Your task to perform on an android device: turn notification dots on Image 0: 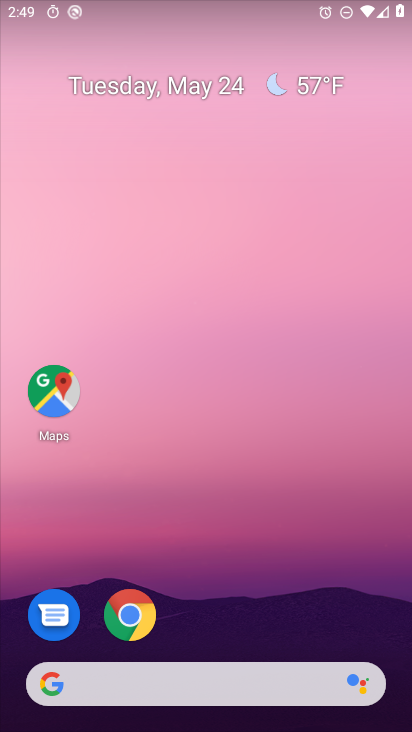
Step 0: drag from (191, 675) to (247, 204)
Your task to perform on an android device: turn notification dots on Image 1: 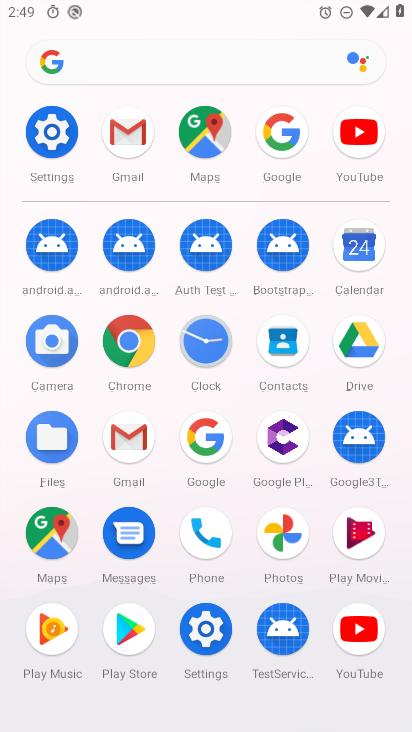
Step 1: click (46, 131)
Your task to perform on an android device: turn notification dots on Image 2: 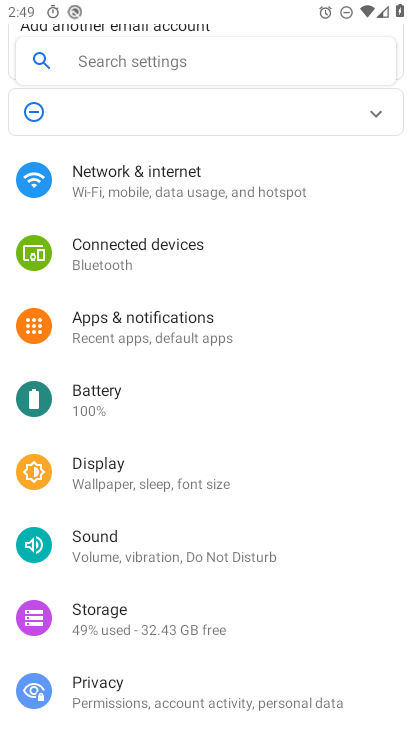
Step 2: click (142, 326)
Your task to perform on an android device: turn notification dots on Image 3: 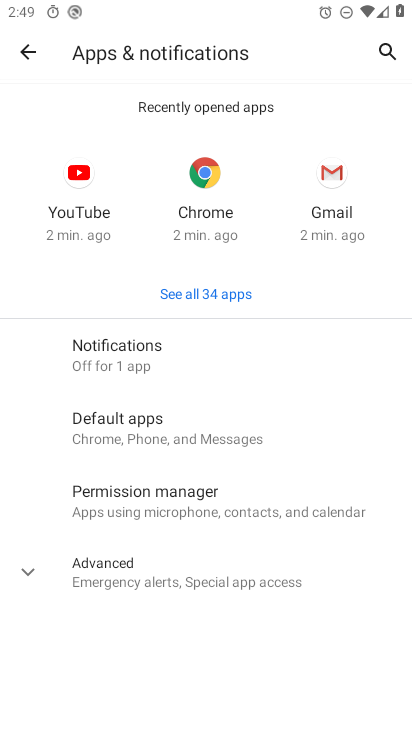
Step 3: click (144, 562)
Your task to perform on an android device: turn notification dots on Image 4: 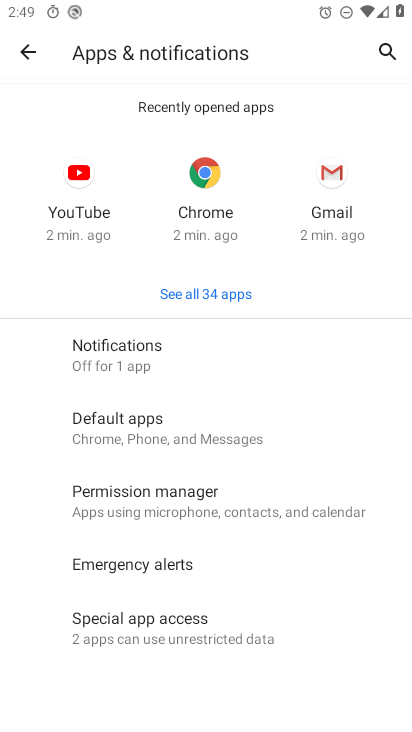
Step 4: drag from (188, 650) to (188, 264)
Your task to perform on an android device: turn notification dots on Image 5: 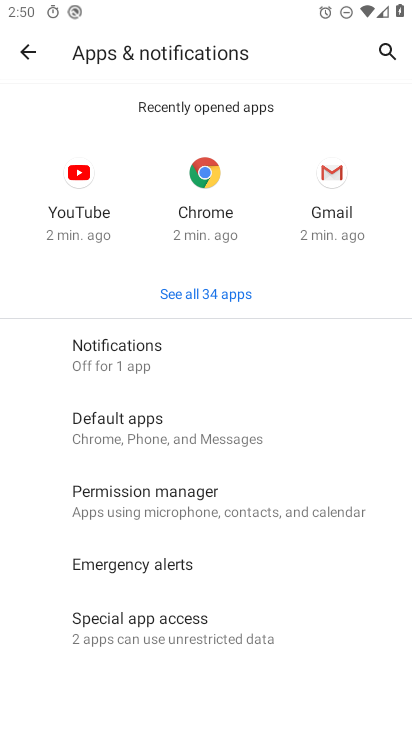
Step 5: click (131, 351)
Your task to perform on an android device: turn notification dots on Image 6: 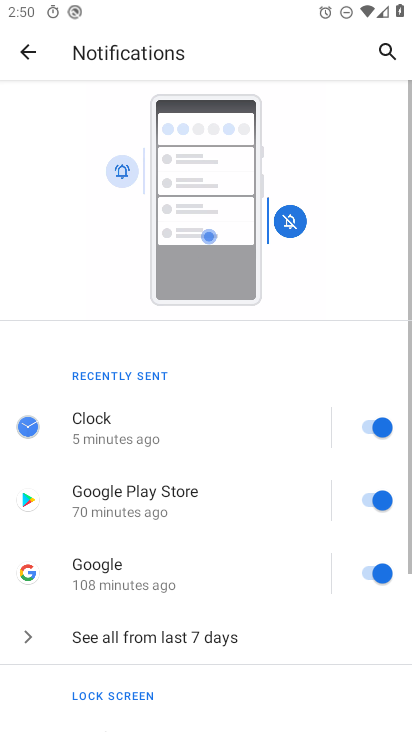
Step 6: drag from (228, 642) to (267, 202)
Your task to perform on an android device: turn notification dots on Image 7: 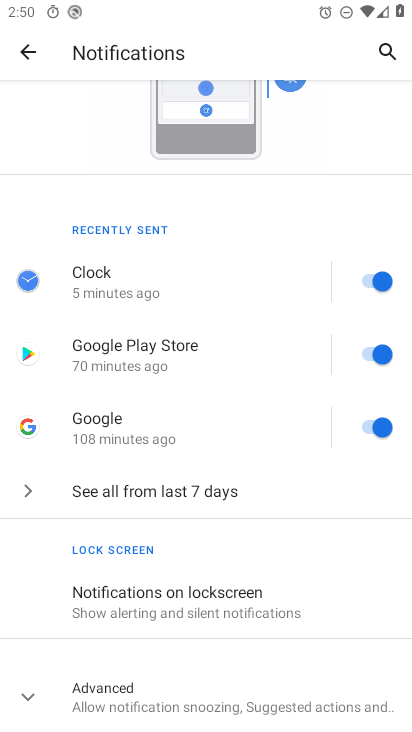
Step 7: click (146, 690)
Your task to perform on an android device: turn notification dots on Image 8: 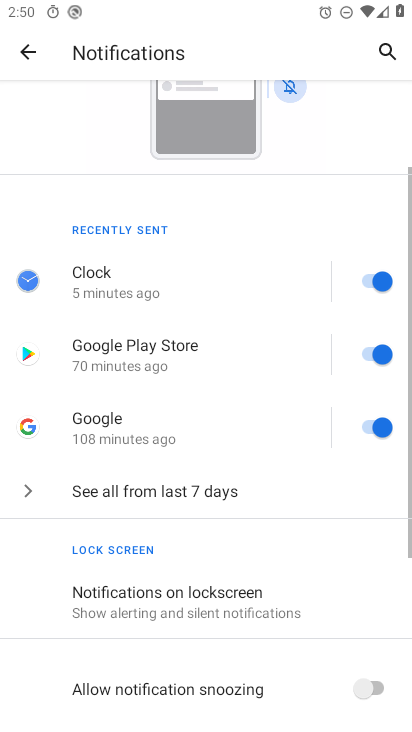
Step 8: drag from (153, 664) to (168, 324)
Your task to perform on an android device: turn notification dots on Image 9: 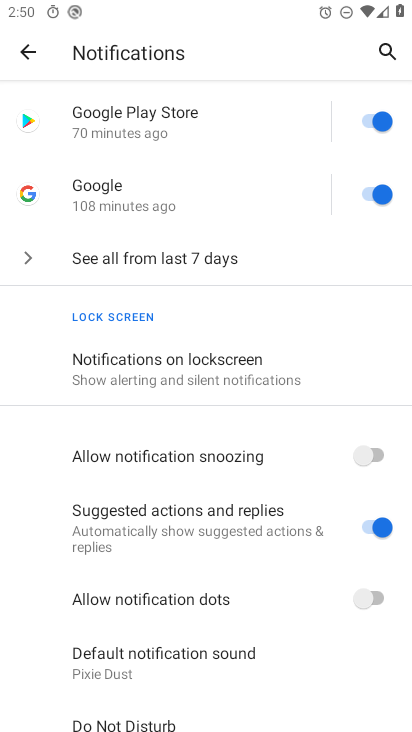
Step 9: click (371, 598)
Your task to perform on an android device: turn notification dots on Image 10: 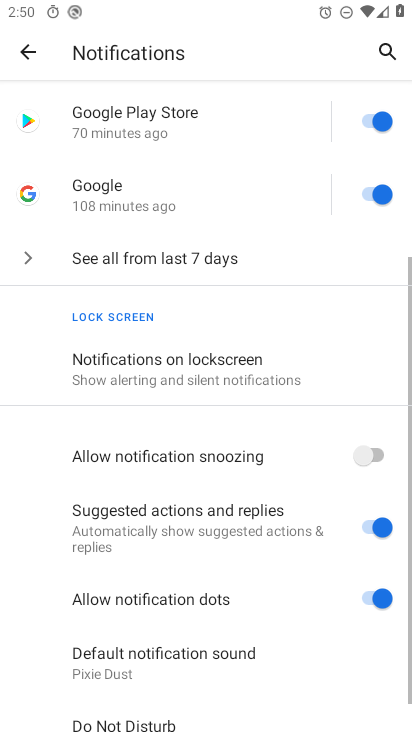
Step 10: task complete